Your task to perform on an android device: check android version Image 0: 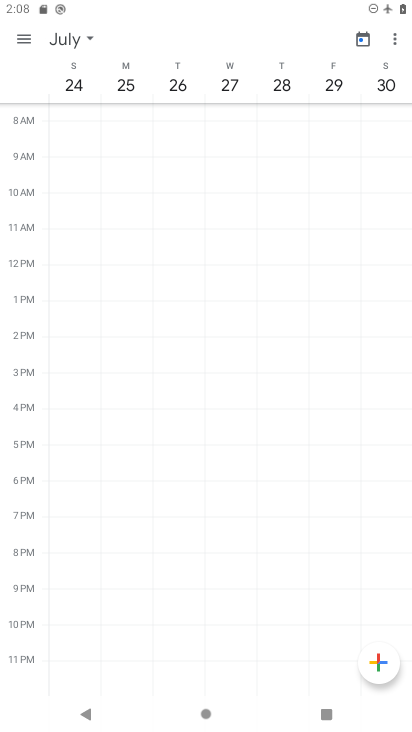
Step 0: press home button
Your task to perform on an android device: check android version Image 1: 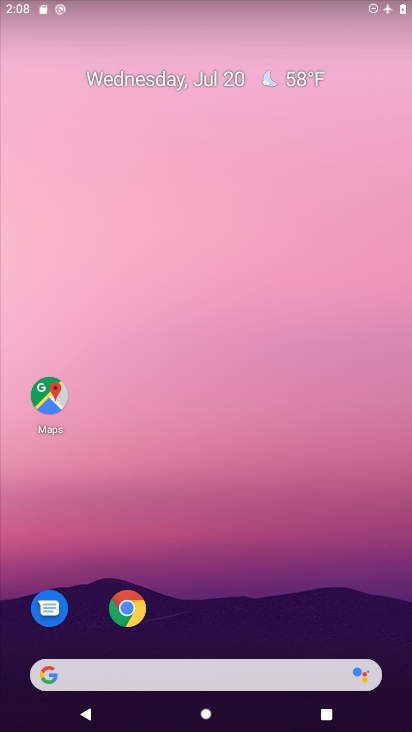
Step 1: drag from (220, 728) to (222, 523)
Your task to perform on an android device: check android version Image 2: 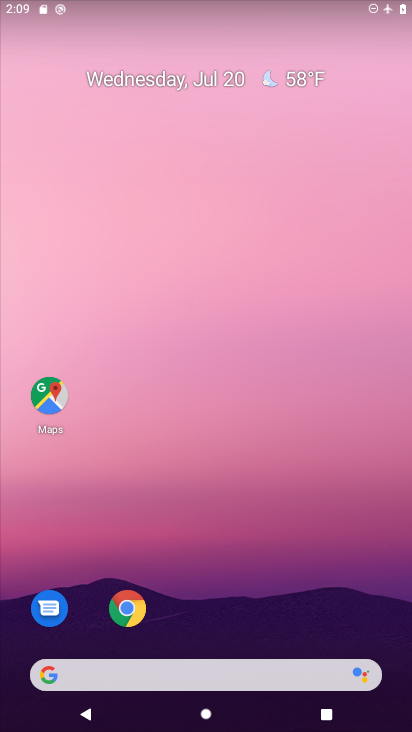
Step 2: drag from (228, 720) to (218, 107)
Your task to perform on an android device: check android version Image 3: 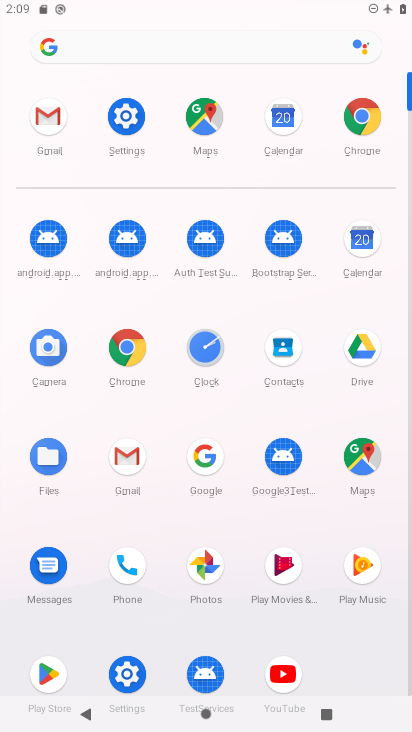
Step 3: click (125, 113)
Your task to perform on an android device: check android version Image 4: 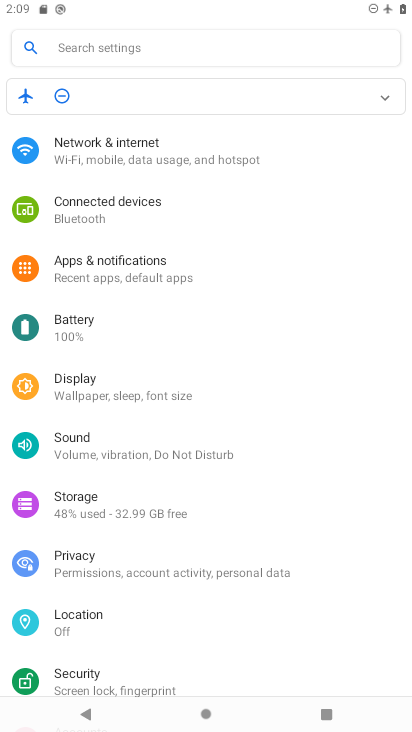
Step 4: drag from (80, 672) to (88, 286)
Your task to perform on an android device: check android version Image 5: 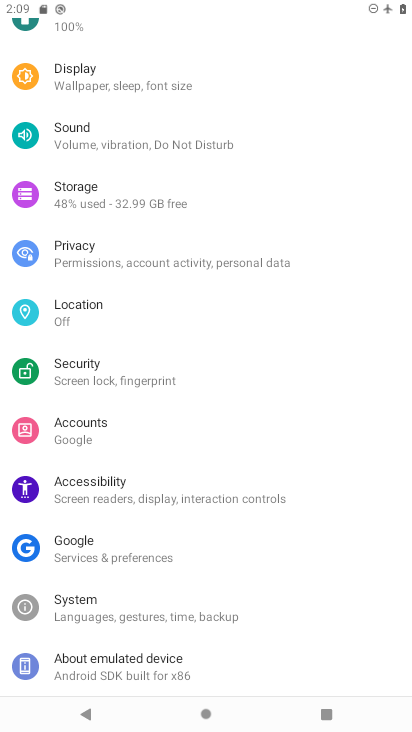
Step 5: drag from (132, 663) to (132, 292)
Your task to perform on an android device: check android version Image 6: 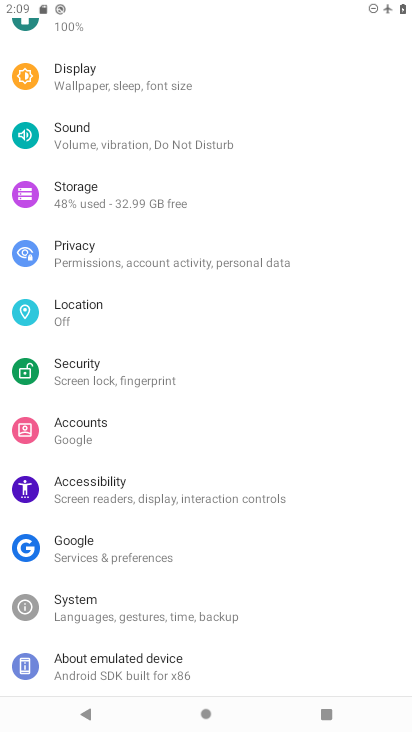
Step 6: click (115, 666)
Your task to perform on an android device: check android version Image 7: 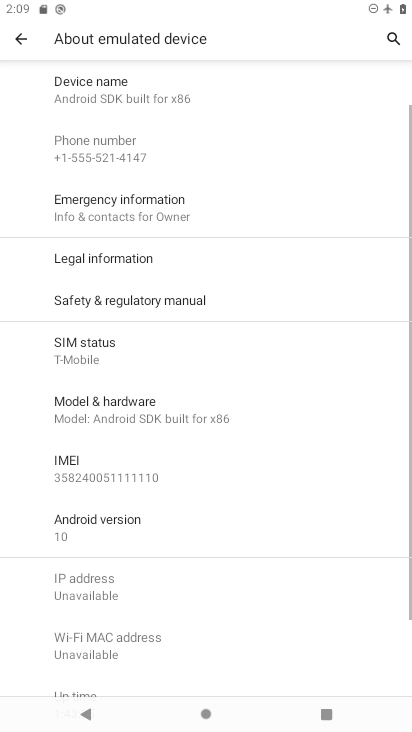
Step 7: task complete